Your task to perform on an android device: Open my contact list Image 0: 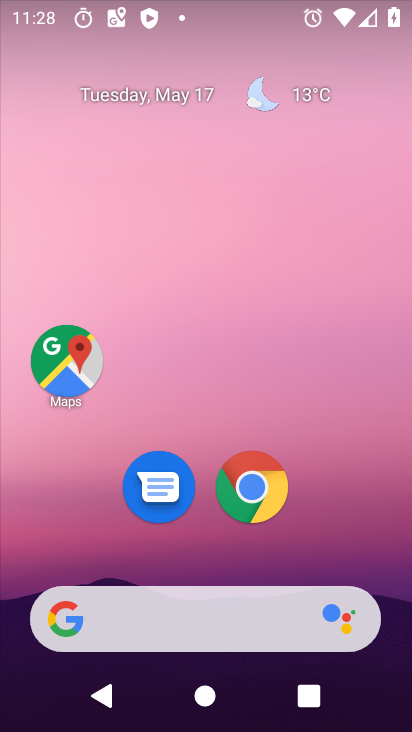
Step 0: drag from (220, 725) to (230, 191)
Your task to perform on an android device: Open my contact list Image 1: 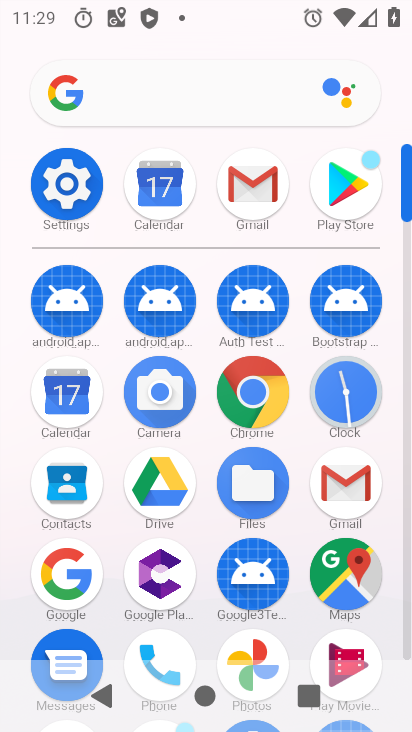
Step 1: click (68, 484)
Your task to perform on an android device: Open my contact list Image 2: 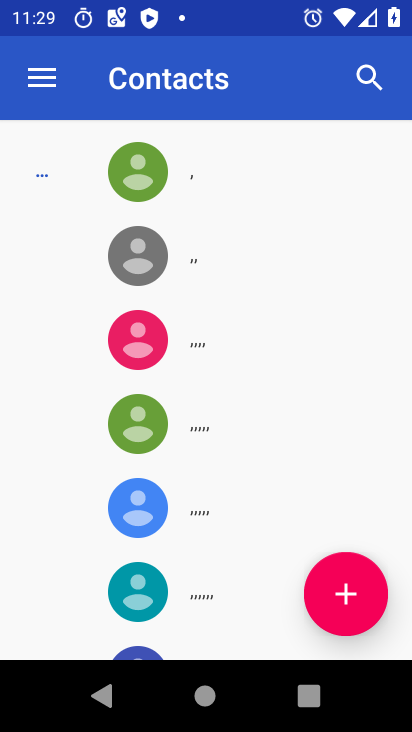
Step 2: task complete